Your task to perform on an android device: change the clock style Image 0: 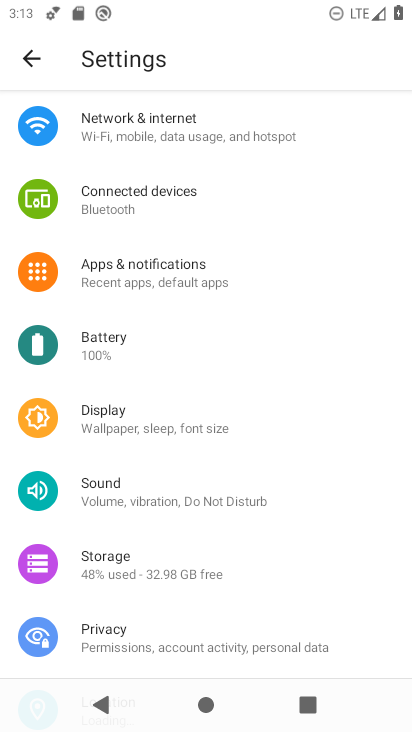
Step 0: press back button
Your task to perform on an android device: change the clock style Image 1: 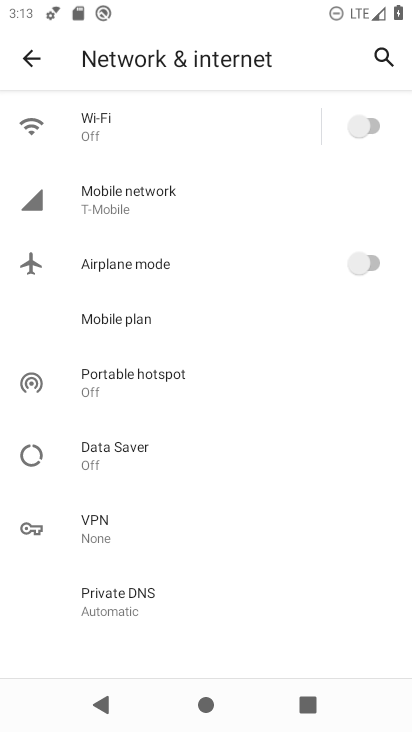
Step 1: press home button
Your task to perform on an android device: change the clock style Image 2: 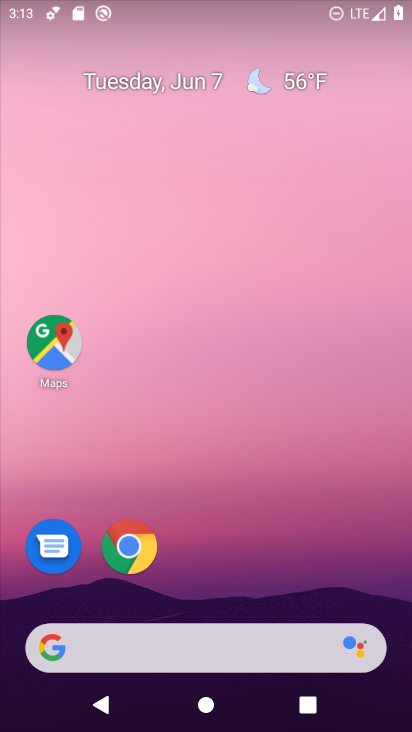
Step 2: drag from (241, 490) to (198, 33)
Your task to perform on an android device: change the clock style Image 3: 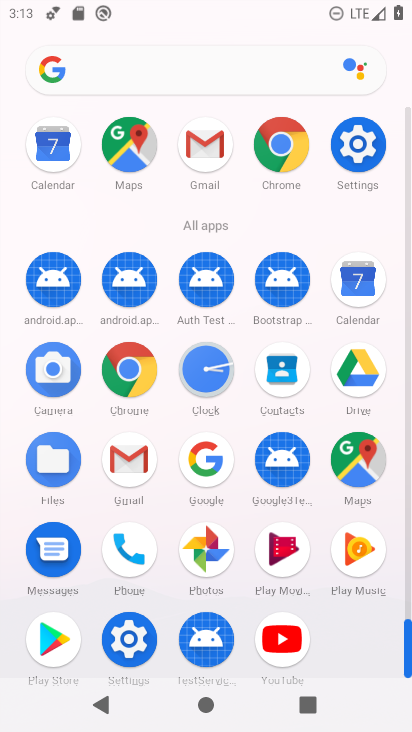
Step 3: drag from (8, 596) to (24, 299)
Your task to perform on an android device: change the clock style Image 4: 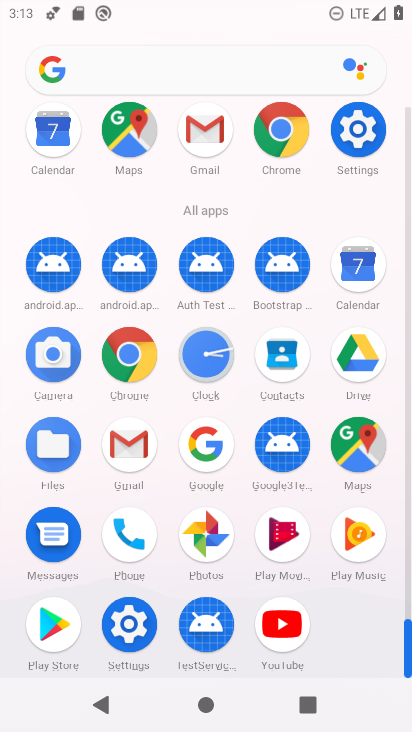
Step 4: click (204, 351)
Your task to perform on an android device: change the clock style Image 5: 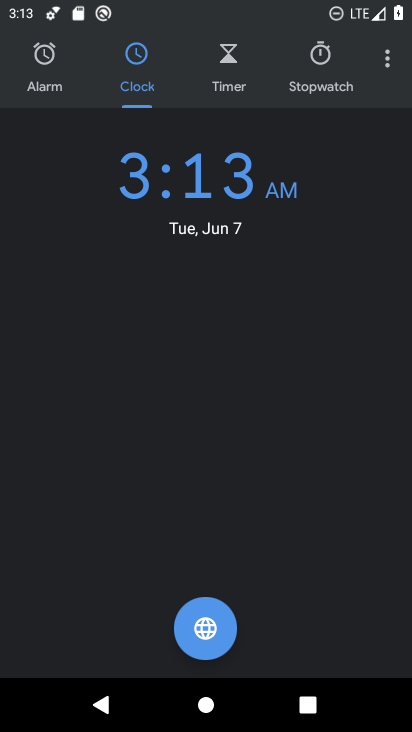
Step 5: drag from (387, 51) to (325, 117)
Your task to perform on an android device: change the clock style Image 6: 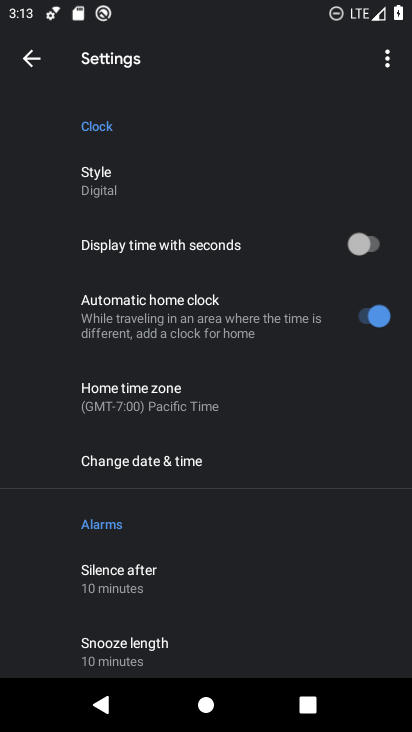
Step 6: click (173, 176)
Your task to perform on an android device: change the clock style Image 7: 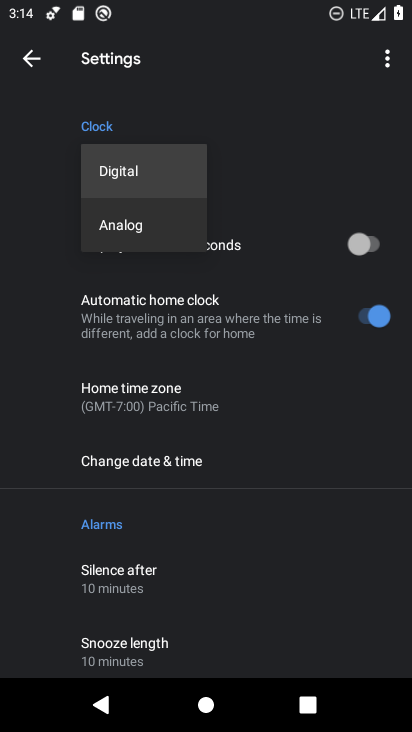
Step 7: click (158, 217)
Your task to perform on an android device: change the clock style Image 8: 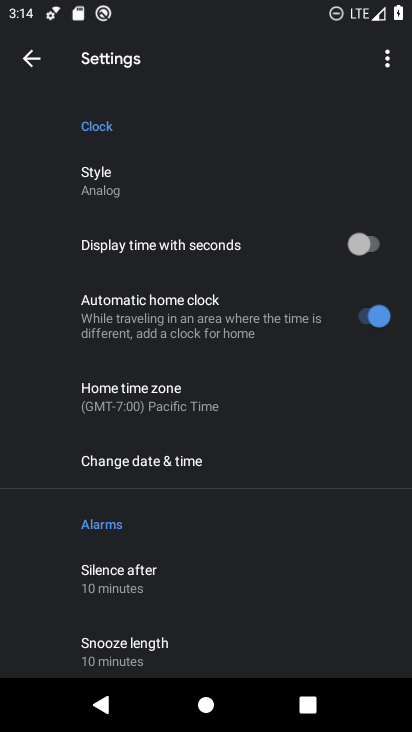
Step 8: task complete